Your task to perform on an android device: change the clock style Image 0: 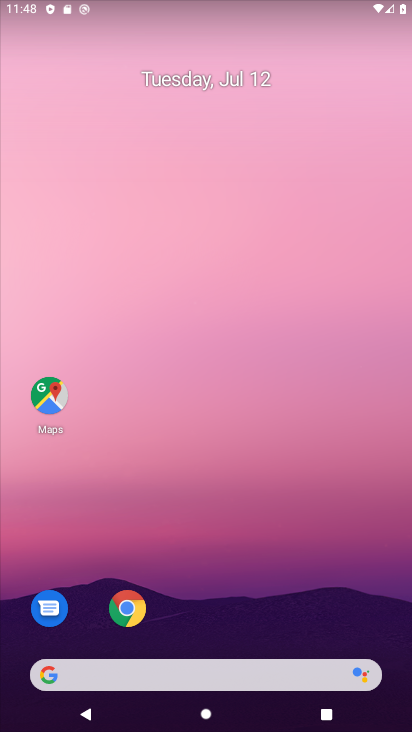
Step 0: drag from (267, 615) to (303, 0)
Your task to perform on an android device: change the clock style Image 1: 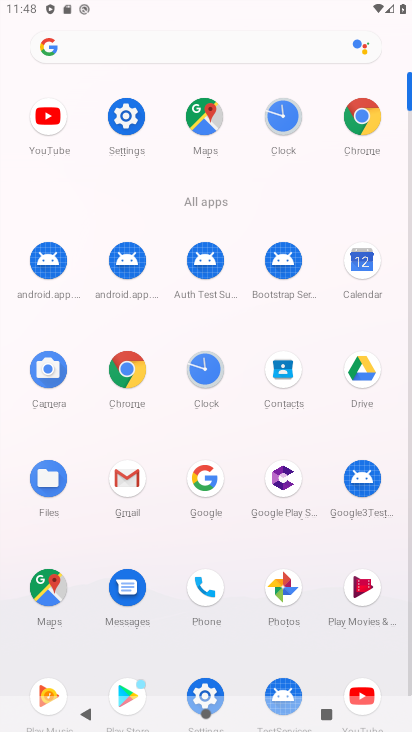
Step 1: click (200, 379)
Your task to perform on an android device: change the clock style Image 2: 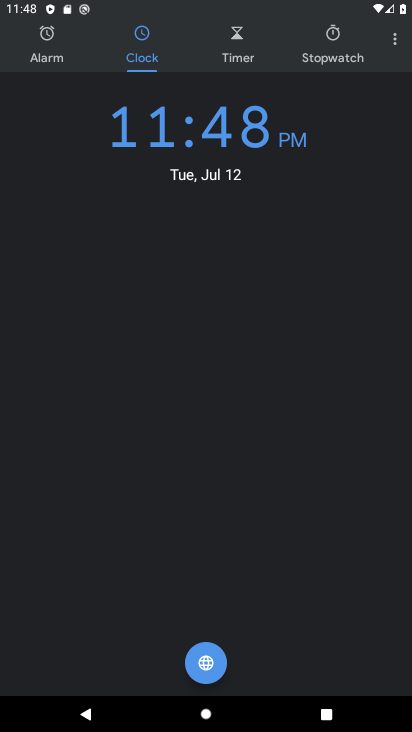
Step 2: click (390, 35)
Your task to perform on an android device: change the clock style Image 3: 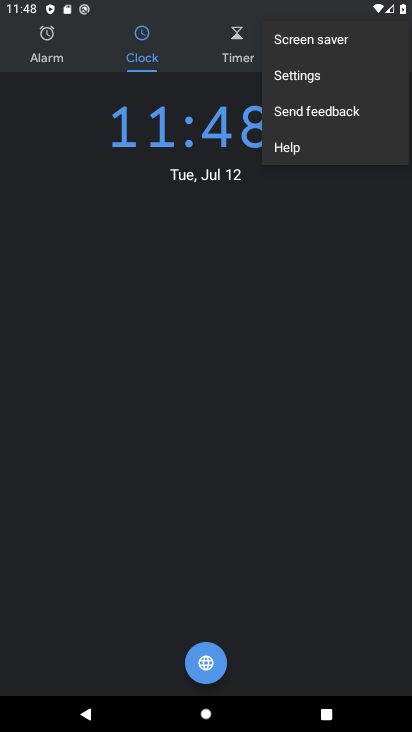
Step 3: click (278, 80)
Your task to perform on an android device: change the clock style Image 4: 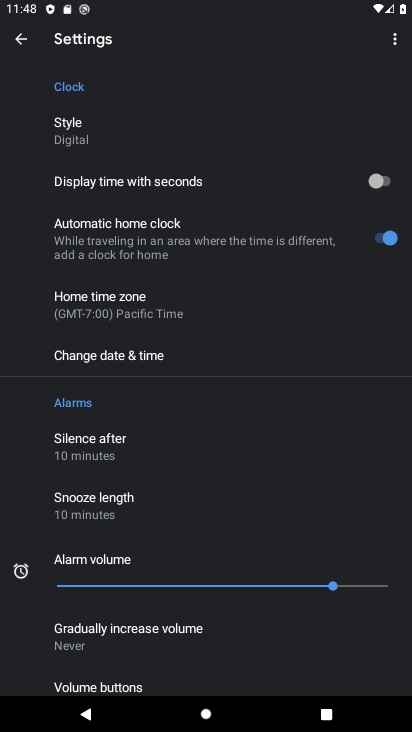
Step 4: click (109, 133)
Your task to perform on an android device: change the clock style Image 5: 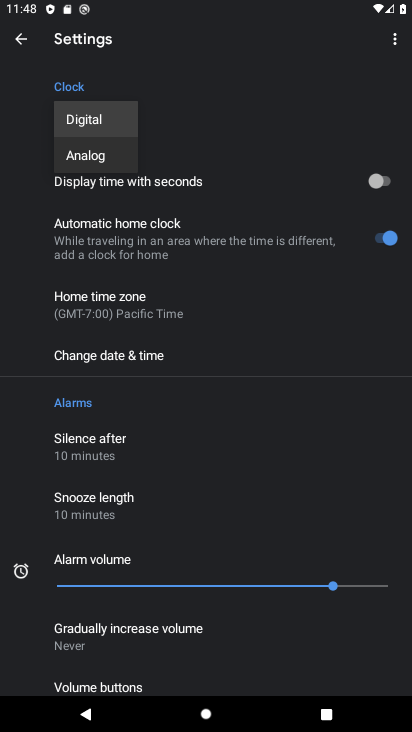
Step 5: click (189, 164)
Your task to perform on an android device: change the clock style Image 6: 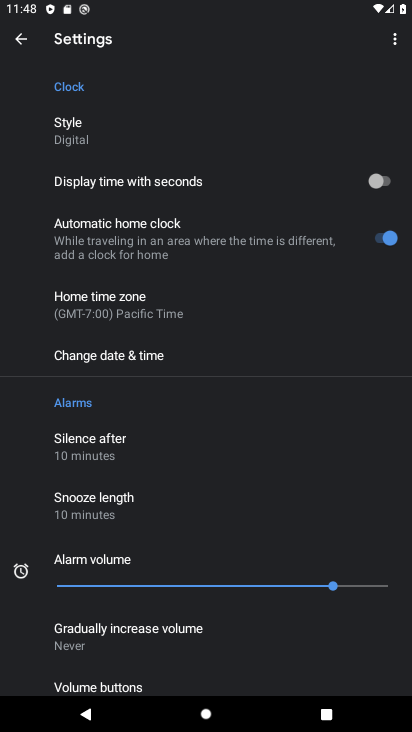
Step 6: click (93, 123)
Your task to perform on an android device: change the clock style Image 7: 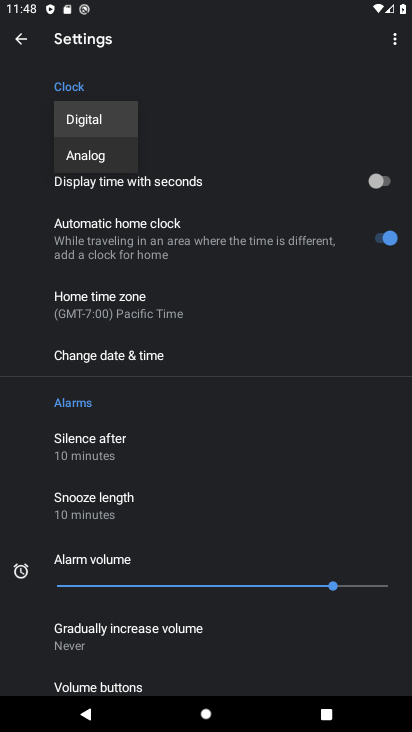
Step 7: click (108, 157)
Your task to perform on an android device: change the clock style Image 8: 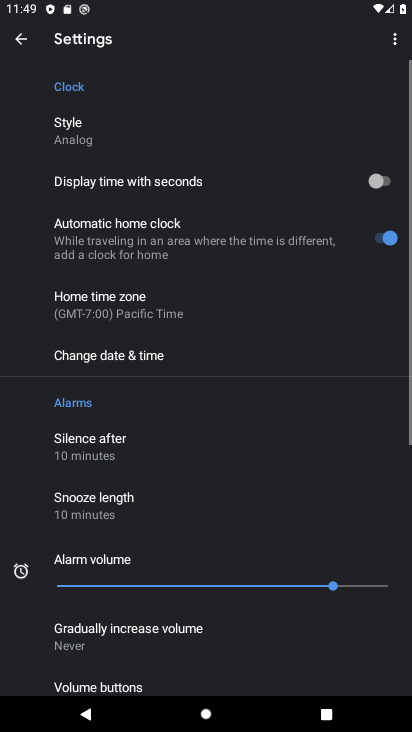
Step 8: task complete